Your task to perform on an android device: Open Maps and search for coffee Image 0: 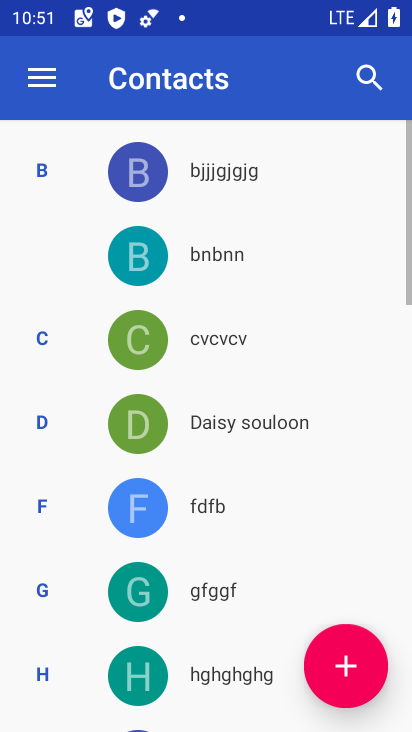
Step 0: click (155, 577)
Your task to perform on an android device: Open Maps and search for coffee Image 1: 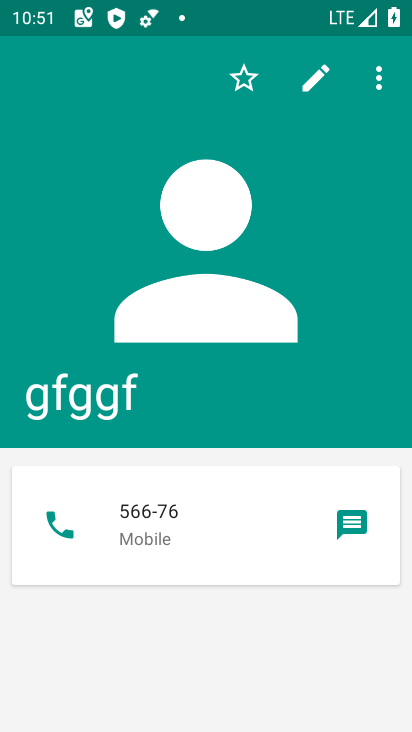
Step 1: press back button
Your task to perform on an android device: Open Maps and search for coffee Image 2: 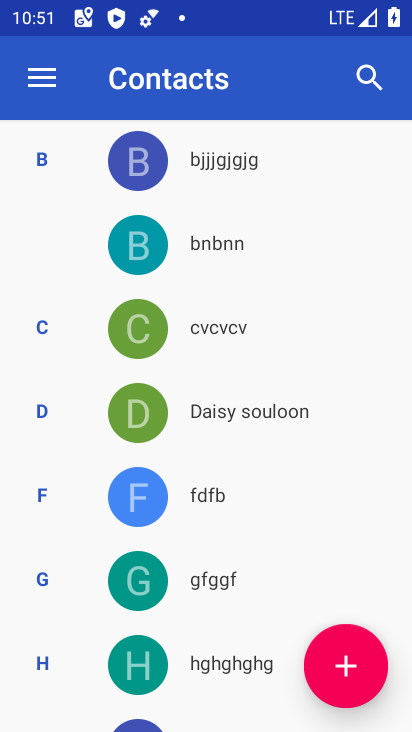
Step 2: press back button
Your task to perform on an android device: Open Maps and search for coffee Image 3: 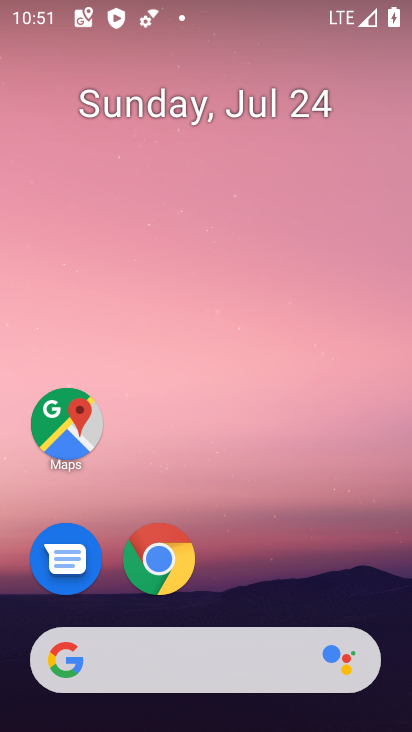
Step 3: click (63, 429)
Your task to perform on an android device: Open Maps and search for coffee Image 4: 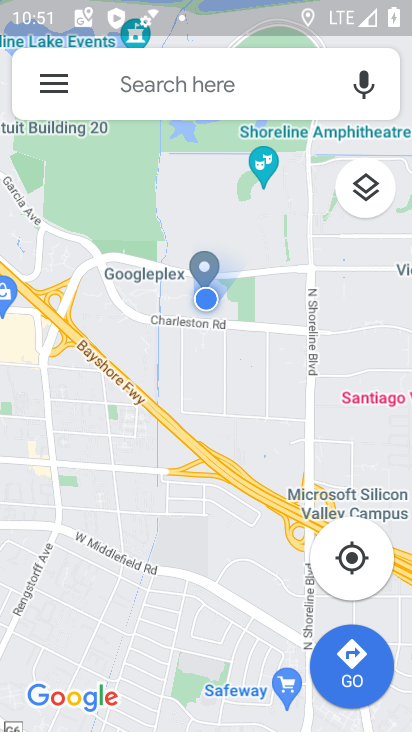
Step 4: click (199, 79)
Your task to perform on an android device: Open Maps and search for coffee Image 5: 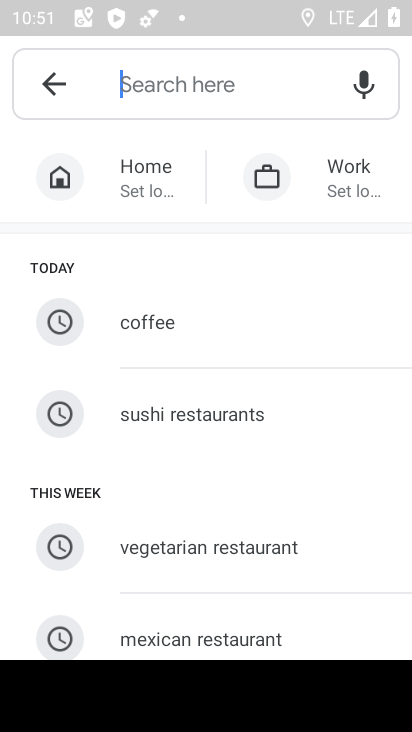
Step 5: type "coffee"
Your task to perform on an android device: Open Maps and search for coffee Image 6: 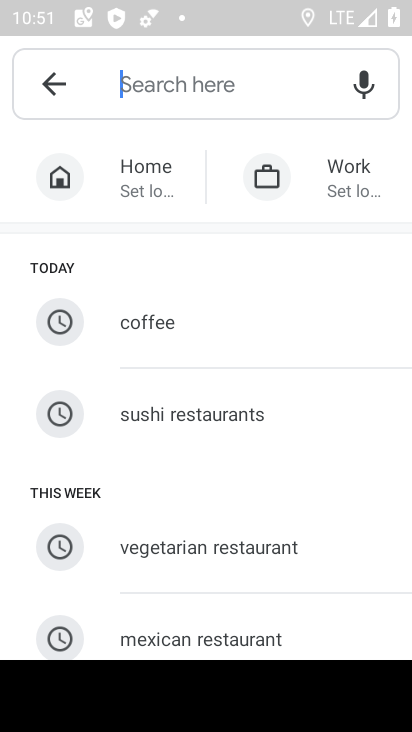
Step 6: click (221, 341)
Your task to perform on an android device: Open Maps and search for coffee Image 7: 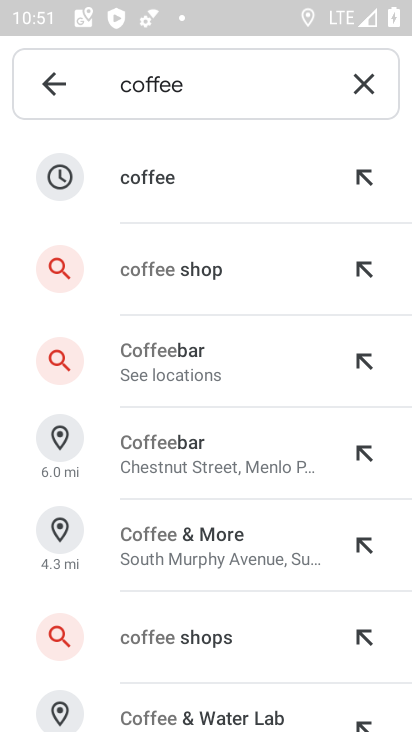
Step 7: click (146, 182)
Your task to perform on an android device: Open Maps and search for coffee Image 8: 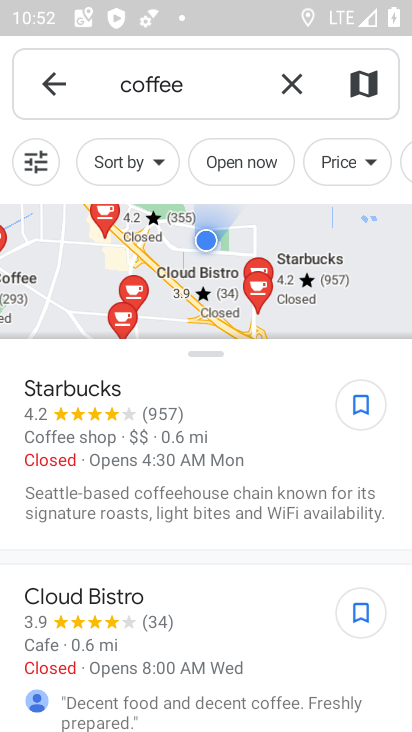
Step 8: task complete